Your task to perform on an android device: What is the news today? Image 0: 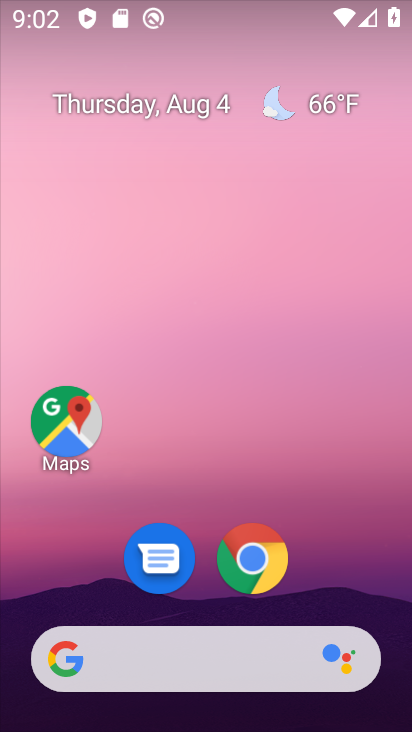
Step 0: drag from (336, 559) to (394, 81)
Your task to perform on an android device: What is the news today? Image 1: 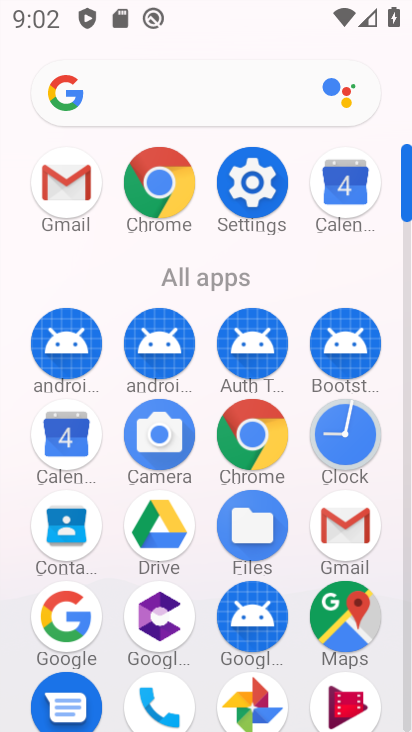
Step 1: click (253, 431)
Your task to perform on an android device: What is the news today? Image 2: 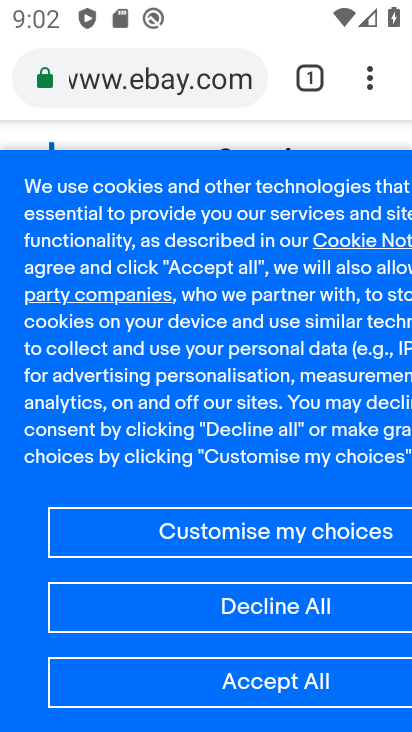
Step 2: click (222, 80)
Your task to perform on an android device: What is the news today? Image 3: 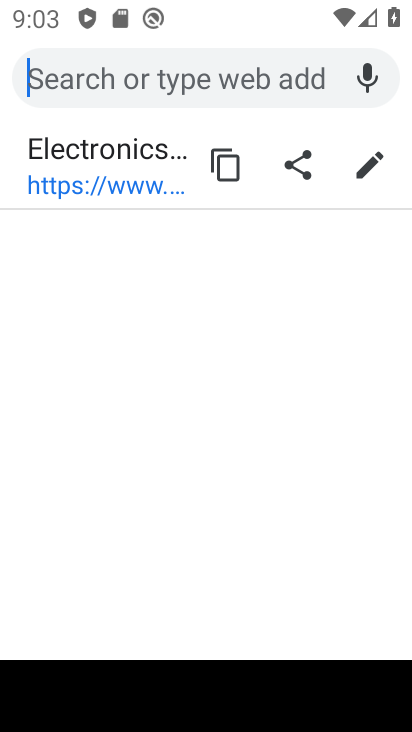
Step 3: type ""
Your task to perform on an android device: What is the news today? Image 4: 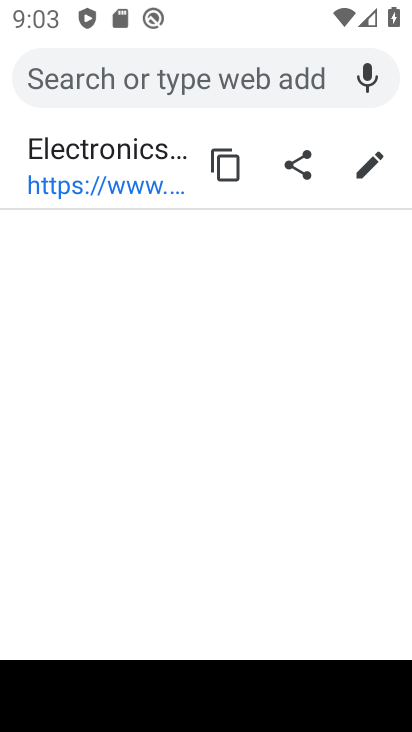
Step 4: type "news"
Your task to perform on an android device: What is the news today? Image 5: 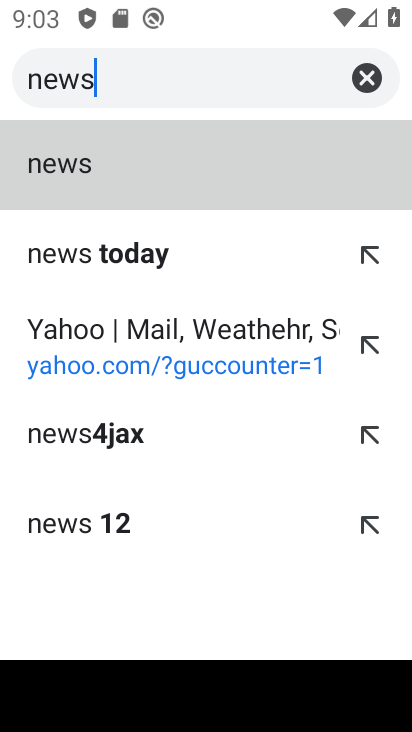
Step 5: click (84, 162)
Your task to perform on an android device: What is the news today? Image 6: 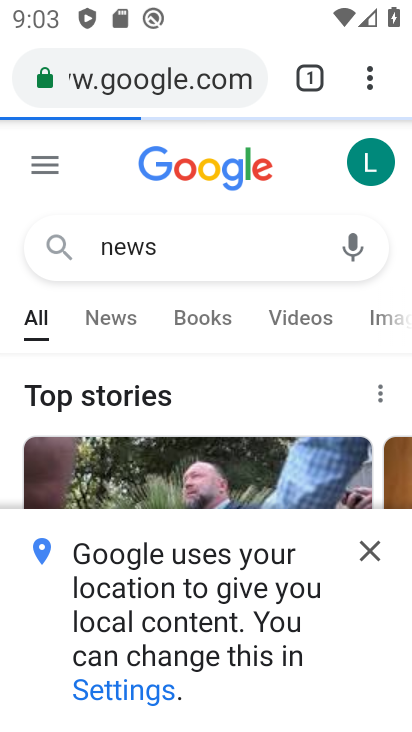
Step 6: drag from (181, 376) to (234, 49)
Your task to perform on an android device: What is the news today? Image 7: 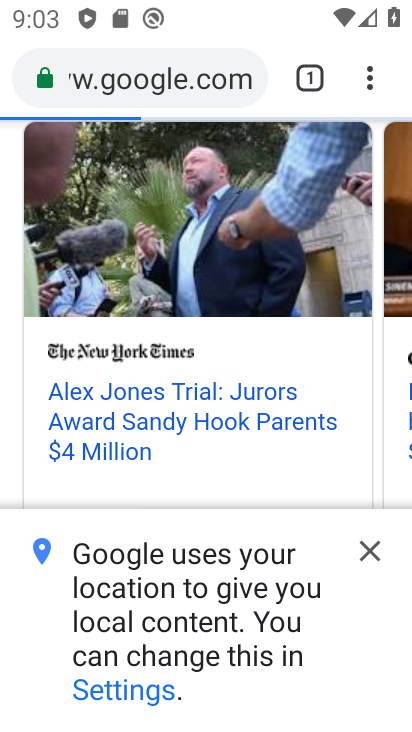
Step 7: drag from (379, 464) to (383, 86)
Your task to perform on an android device: What is the news today? Image 8: 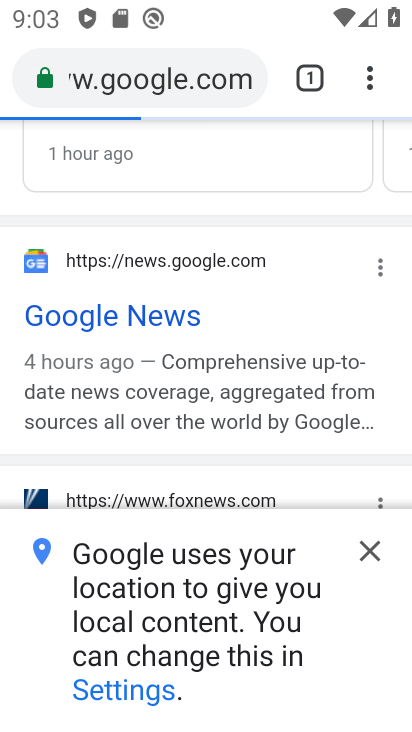
Step 8: click (125, 318)
Your task to perform on an android device: What is the news today? Image 9: 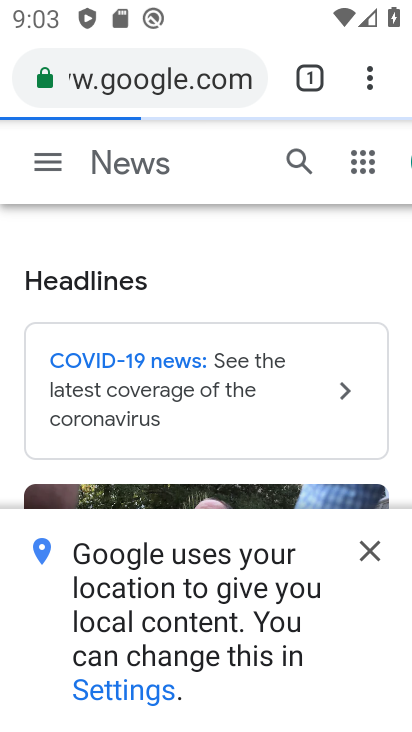
Step 9: click (377, 553)
Your task to perform on an android device: What is the news today? Image 10: 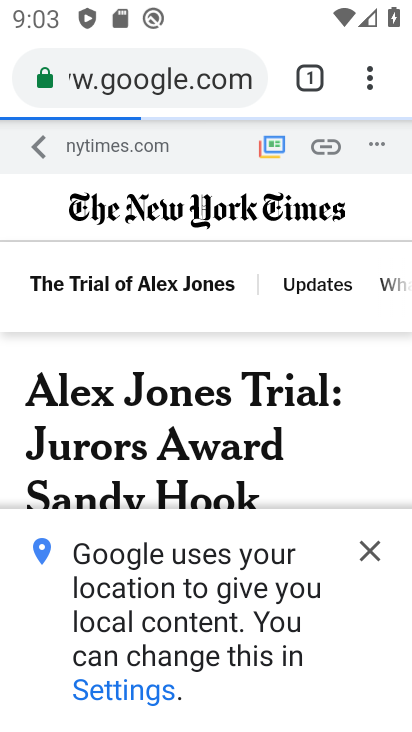
Step 10: click (377, 549)
Your task to perform on an android device: What is the news today? Image 11: 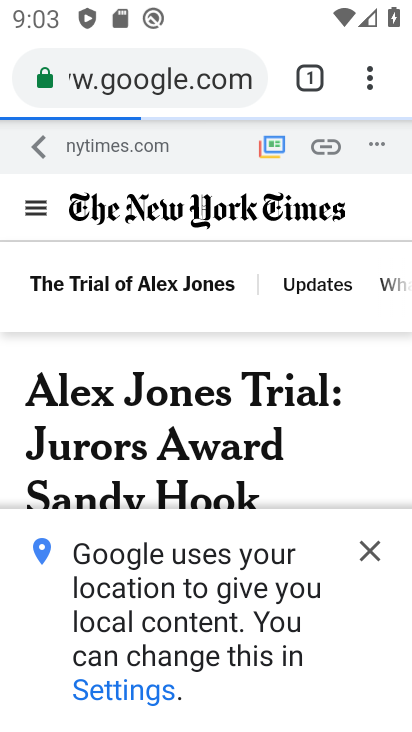
Step 11: click (41, 140)
Your task to perform on an android device: What is the news today? Image 12: 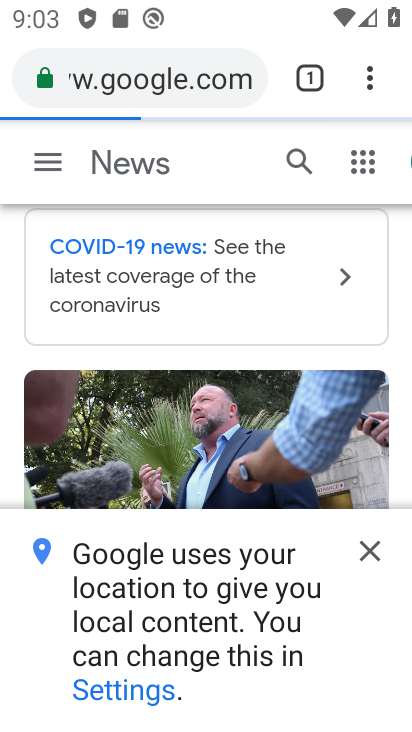
Step 12: task complete